Your task to perform on an android device: move a message to another label in the gmail app Image 0: 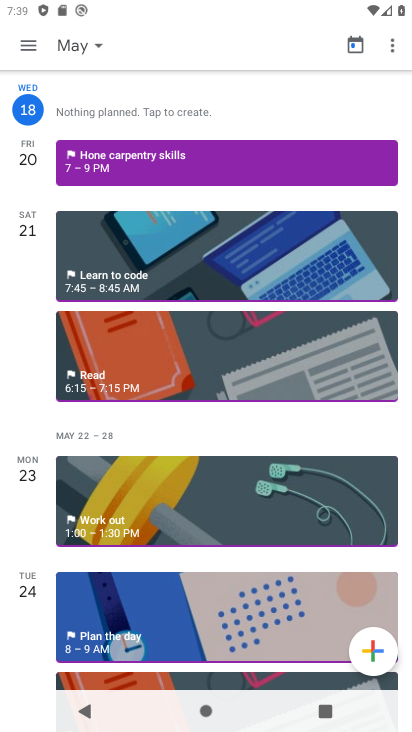
Step 0: press home button
Your task to perform on an android device: move a message to another label in the gmail app Image 1: 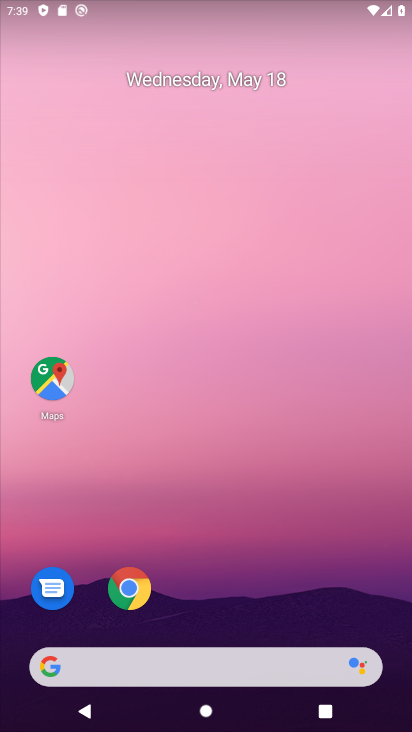
Step 1: drag from (253, 637) to (295, 91)
Your task to perform on an android device: move a message to another label in the gmail app Image 2: 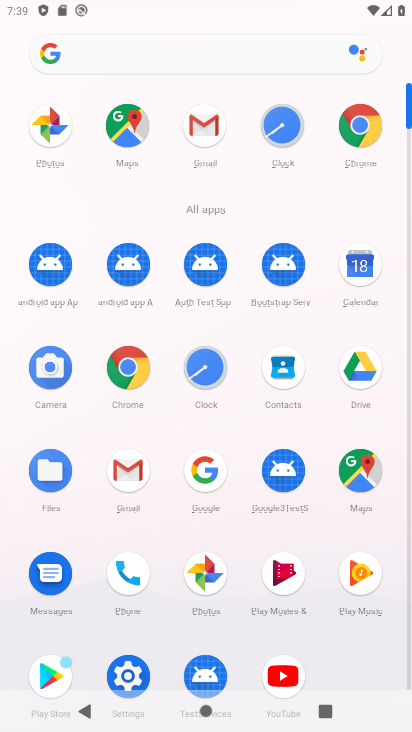
Step 2: click (133, 477)
Your task to perform on an android device: move a message to another label in the gmail app Image 3: 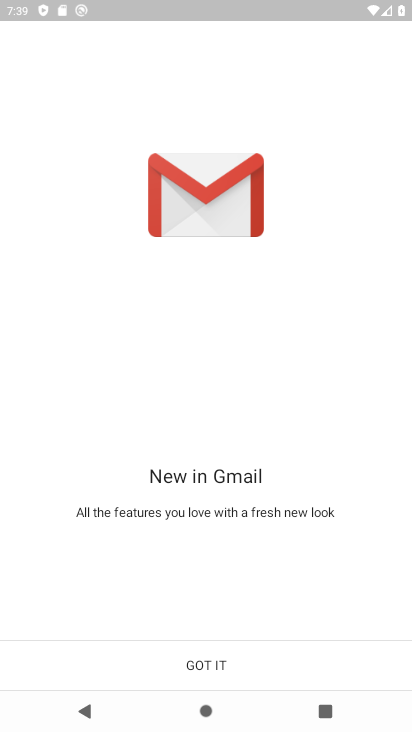
Step 3: click (234, 652)
Your task to perform on an android device: move a message to another label in the gmail app Image 4: 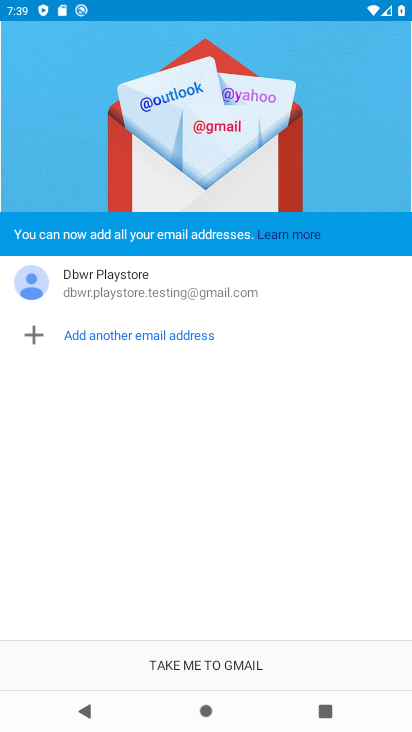
Step 4: click (224, 664)
Your task to perform on an android device: move a message to another label in the gmail app Image 5: 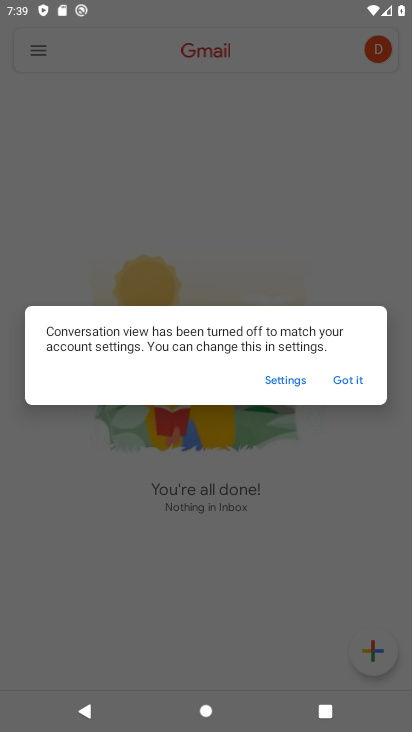
Step 5: click (348, 386)
Your task to perform on an android device: move a message to another label in the gmail app Image 6: 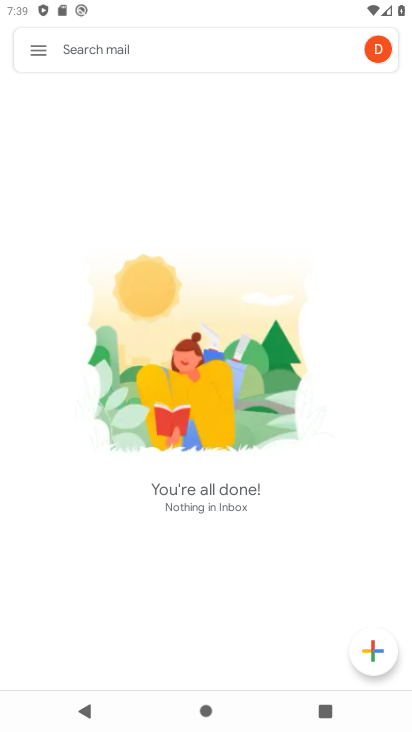
Step 6: click (42, 57)
Your task to perform on an android device: move a message to another label in the gmail app Image 7: 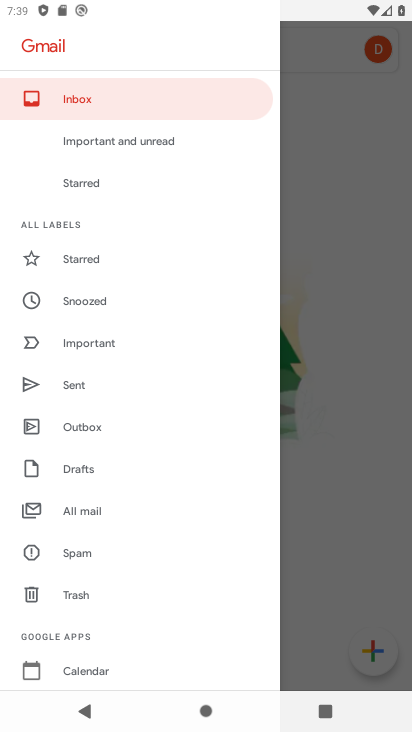
Step 7: click (109, 519)
Your task to perform on an android device: move a message to another label in the gmail app Image 8: 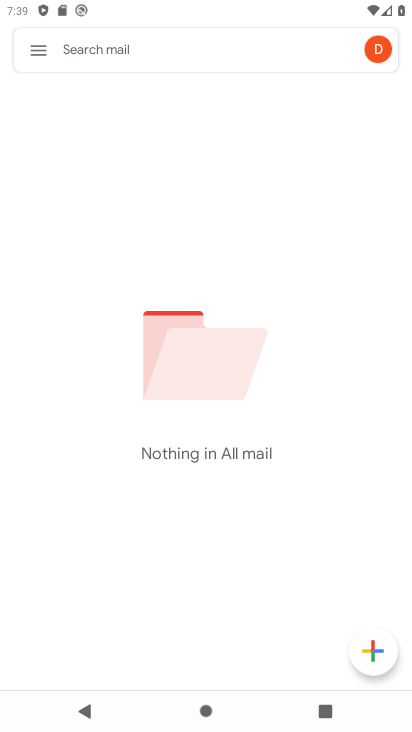
Step 8: task complete